Your task to perform on an android device: Open my contact list Image 0: 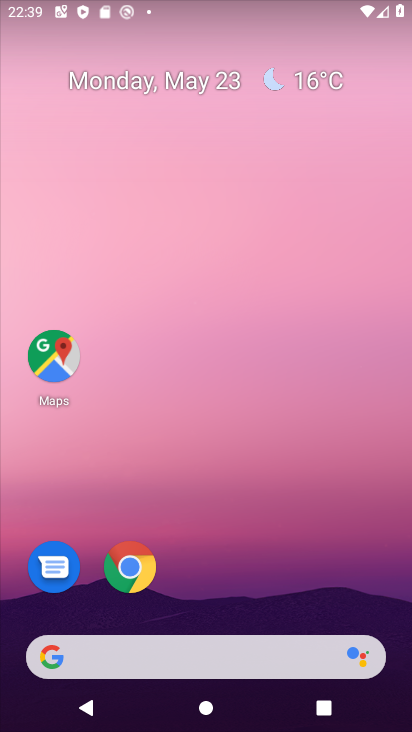
Step 0: drag from (279, 20) to (83, 41)
Your task to perform on an android device: Open my contact list Image 1: 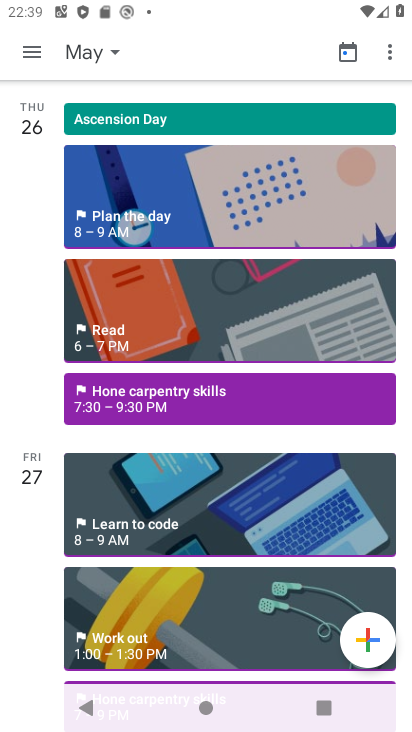
Step 1: press home button
Your task to perform on an android device: Open my contact list Image 2: 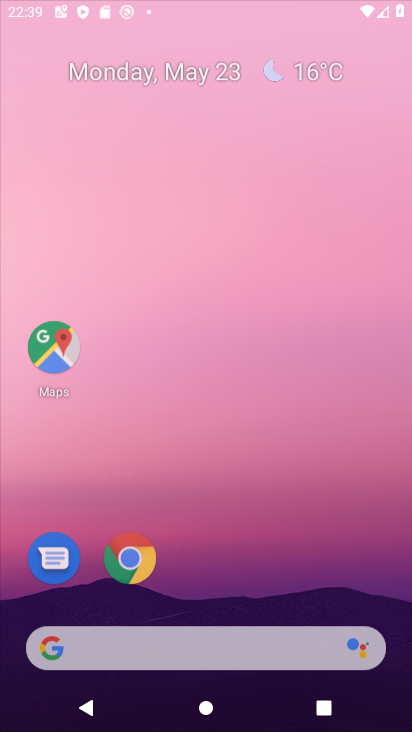
Step 2: drag from (110, 668) to (193, 0)
Your task to perform on an android device: Open my contact list Image 3: 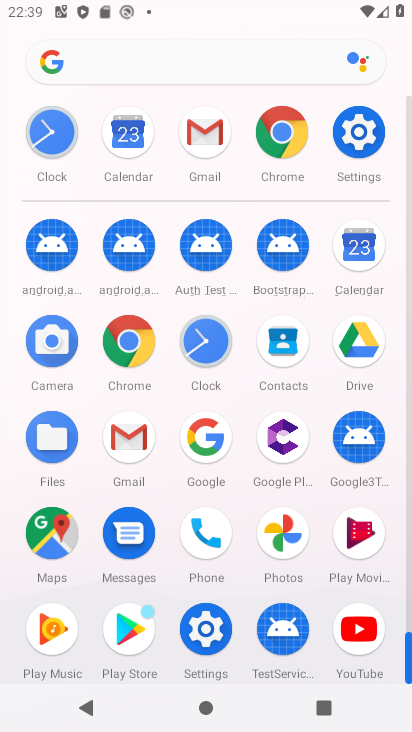
Step 3: click (286, 346)
Your task to perform on an android device: Open my contact list Image 4: 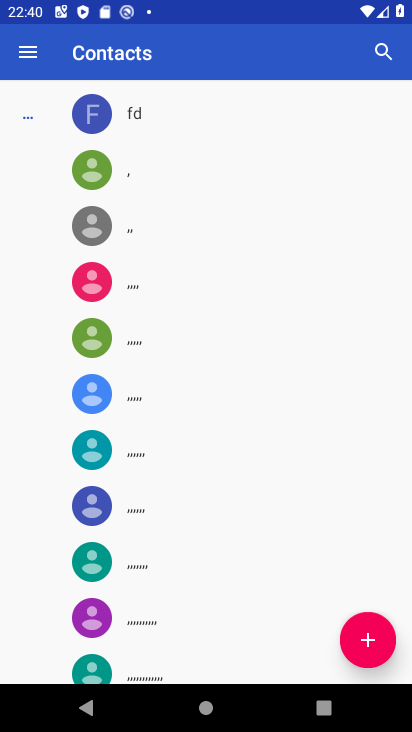
Step 4: task complete